Your task to perform on an android device: turn vacation reply on in the gmail app Image 0: 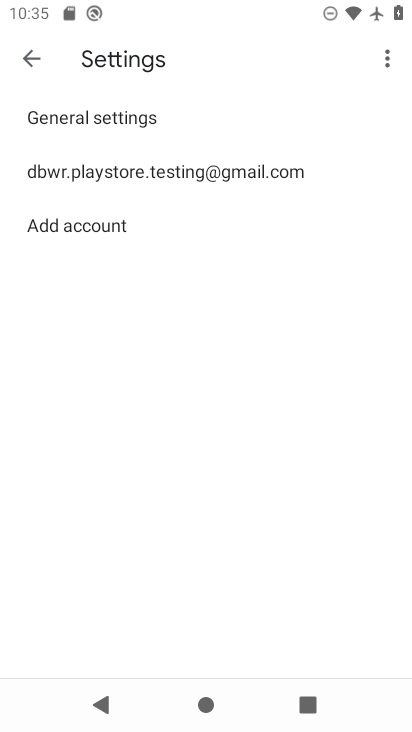
Step 0: click (199, 167)
Your task to perform on an android device: turn vacation reply on in the gmail app Image 1: 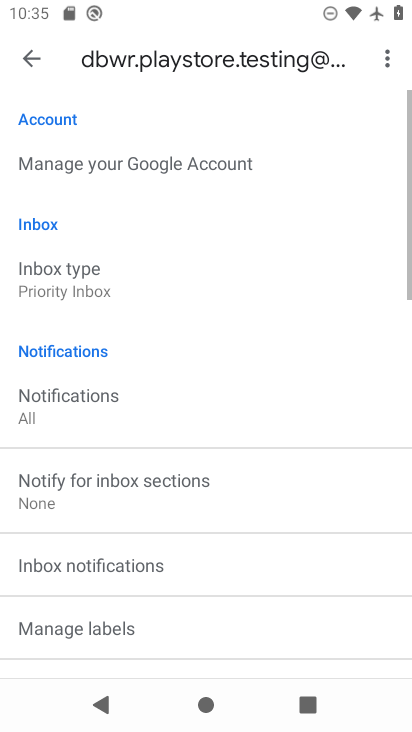
Step 1: drag from (269, 537) to (284, 181)
Your task to perform on an android device: turn vacation reply on in the gmail app Image 2: 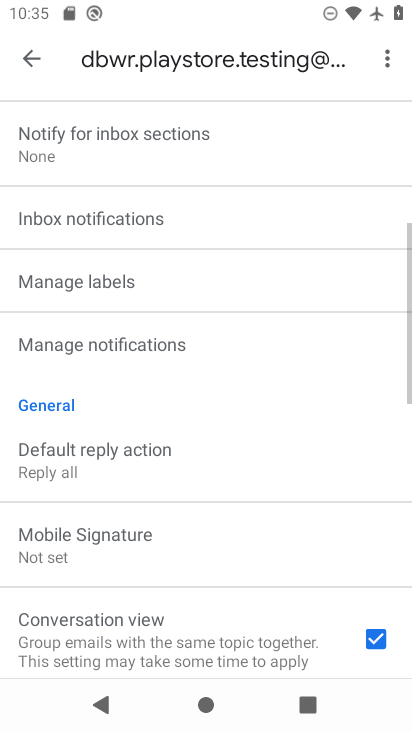
Step 2: drag from (120, 578) to (229, 229)
Your task to perform on an android device: turn vacation reply on in the gmail app Image 3: 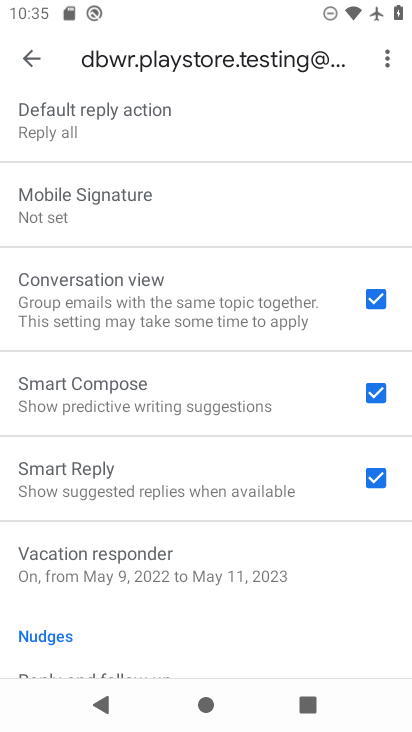
Step 3: drag from (158, 543) to (256, 355)
Your task to perform on an android device: turn vacation reply on in the gmail app Image 4: 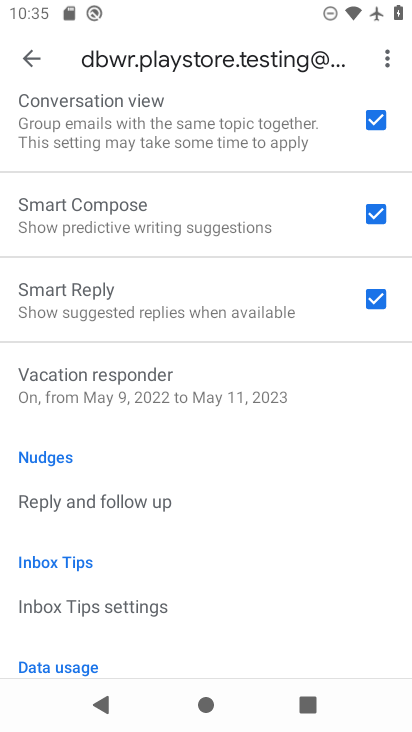
Step 4: drag from (231, 527) to (316, 155)
Your task to perform on an android device: turn vacation reply on in the gmail app Image 5: 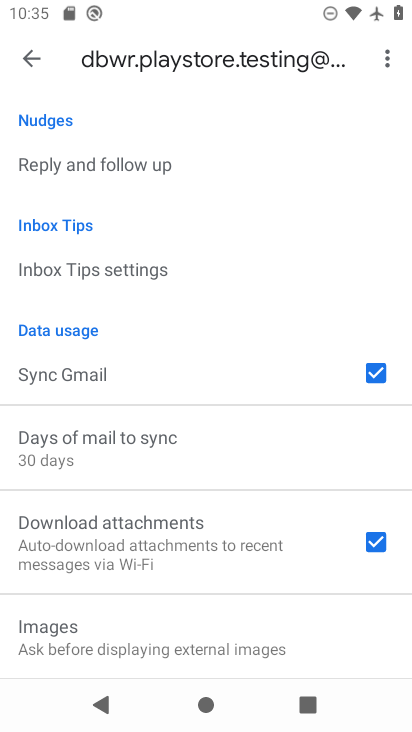
Step 5: drag from (295, 519) to (285, 124)
Your task to perform on an android device: turn vacation reply on in the gmail app Image 6: 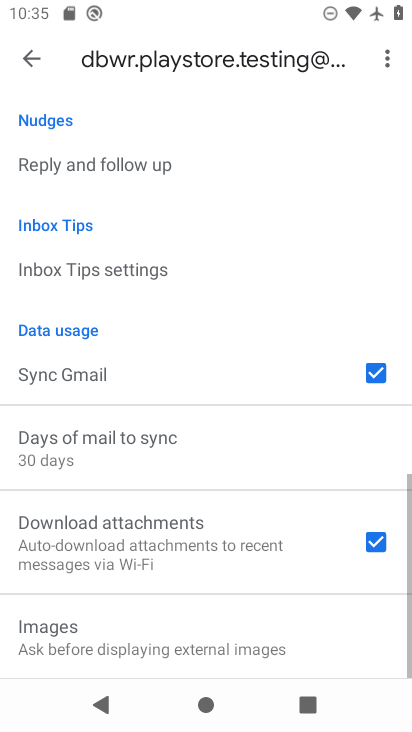
Step 6: drag from (219, 271) to (231, 595)
Your task to perform on an android device: turn vacation reply on in the gmail app Image 7: 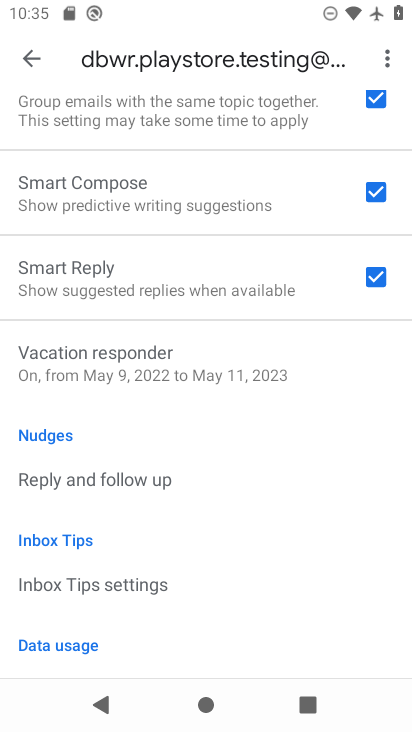
Step 7: click (202, 353)
Your task to perform on an android device: turn vacation reply on in the gmail app Image 8: 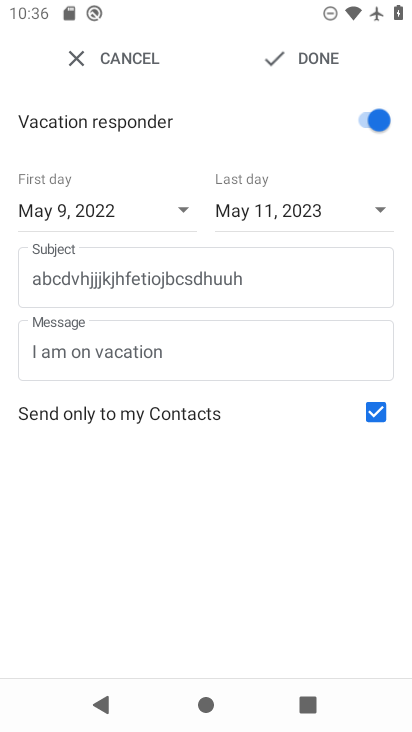
Step 8: task complete